Your task to perform on an android device: turn off translation in the chrome app Image 0: 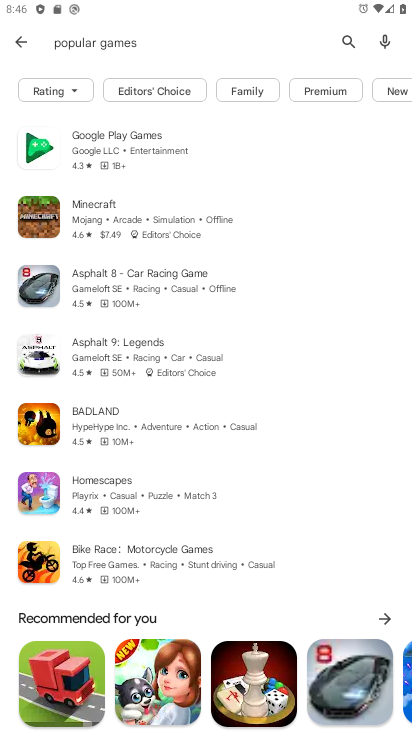
Step 0: press home button
Your task to perform on an android device: turn off translation in the chrome app Image 1: 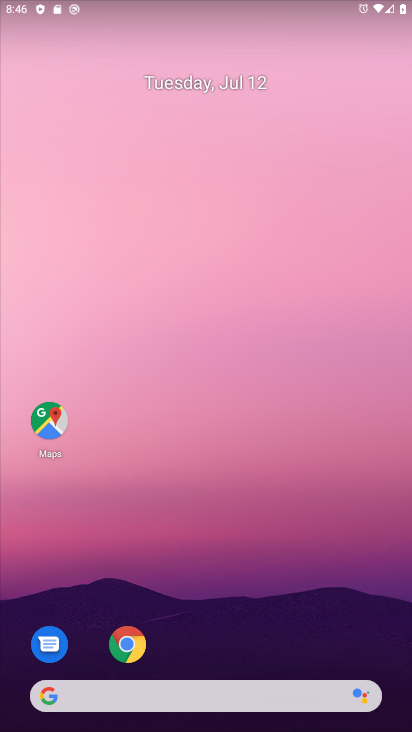
Step 1: click (136, 648)
Your task to perform on an android device: turn off translation in the chrome app Image 2: 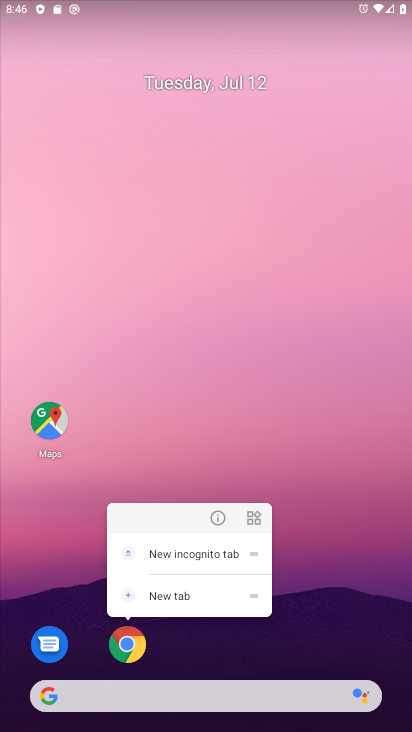
Step 2: click (132, 662)
Your task to perform on an android device: turn off translation in the chrome app Image 3: 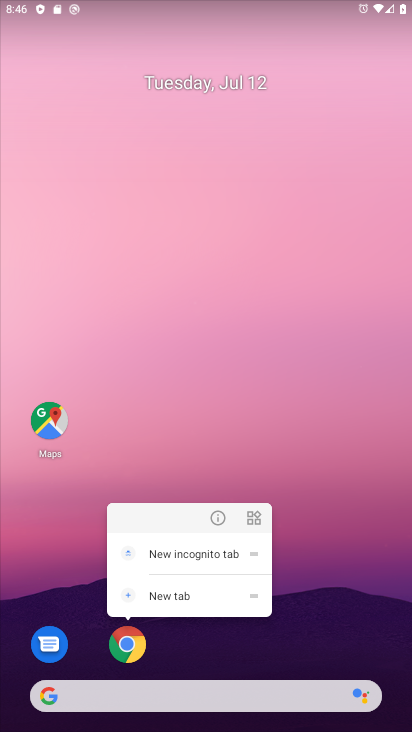
Step 3: click (120, 631)
Your task to perform on an android device: turn off translation in the chrome app Image 4: 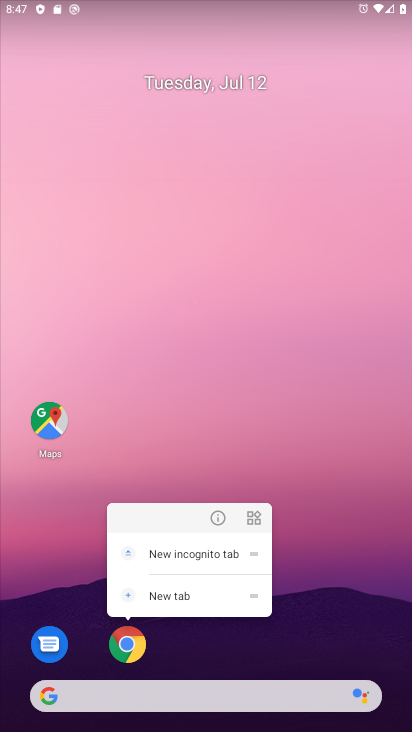
Step 4: click (119, 632)
Your task to perform on an android device: turn off translation in the chrome app Image 5: 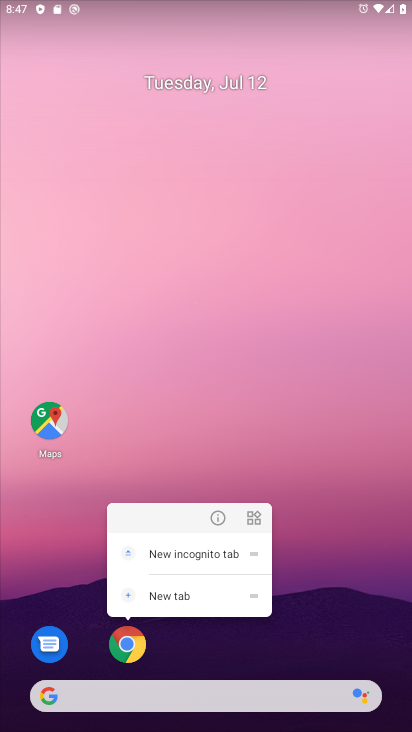
Step 5: click (118, 647)
Your task to perform on an android device: turn off translation in the chrome app Image 6: 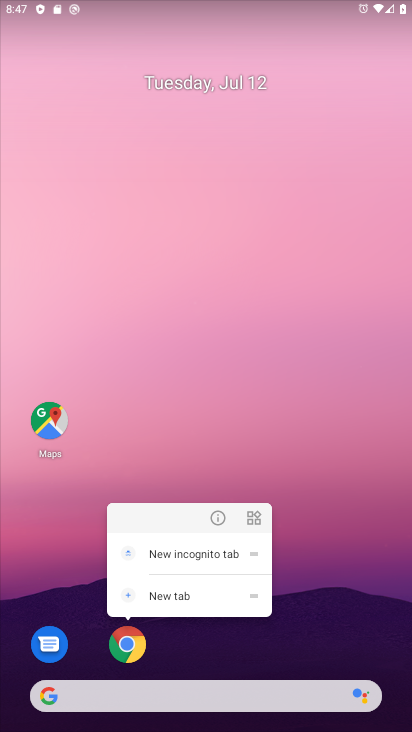
Step 6: click (118, 647)
Your task to perform on an android device: turn off translation in the chrome app Image 7: 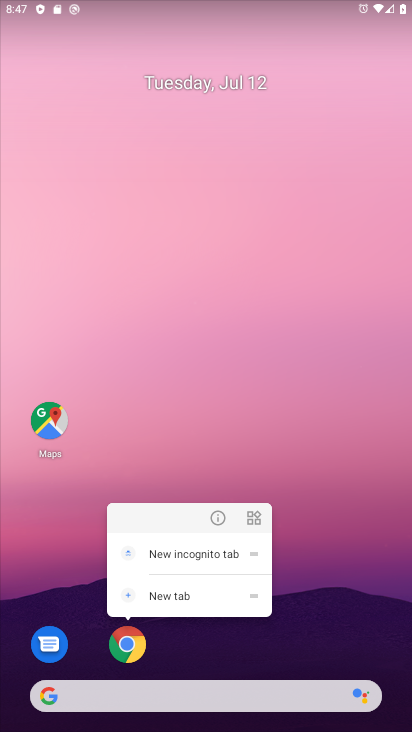
Step 7: task complete